Your task to perform on an android device: Open calendar and show me the second week of next month Image 0: 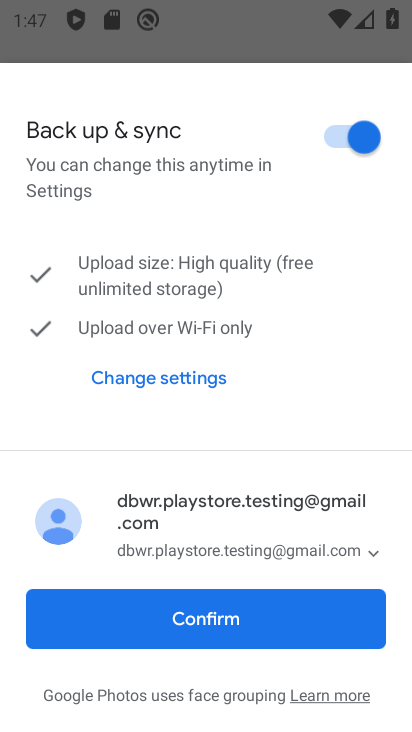
Step 0: press home button
Your task to perform on an android device: Open calendar and show me the second week of next month Image 1: 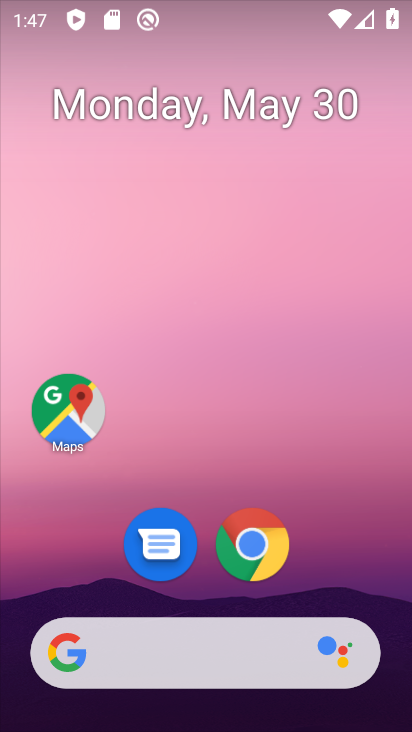
Step 1: drag from (143, 588) to (236, 81)
Your task to perform on an android device: Open calendar and show me the second week of next month Image 2: 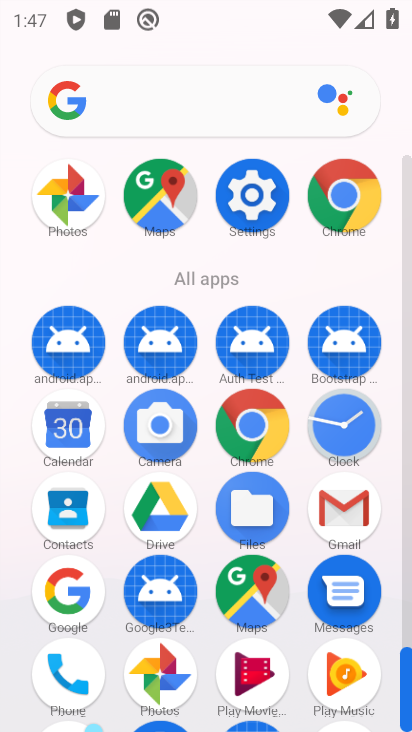
Step 2: click (60, 428)
Your task to perform on an android device: Open calendar and show me the second week of next month Image 3: 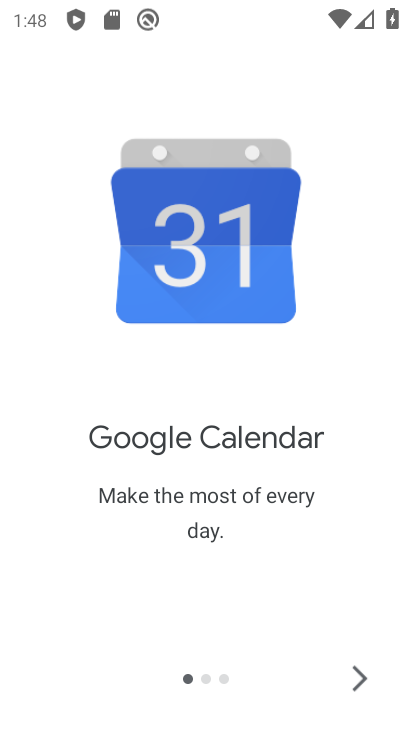
Step 3: click (349, 679)
Your task to perform on an android device: Open calendar and show me the second week of next month Image 4: 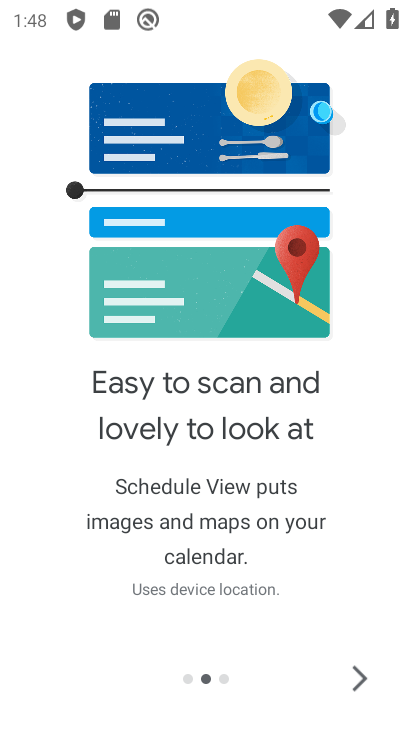
Step 4: click (350, 678)
Your task to perform on an android device: Open calendar and show me the second week of next month Image 5: 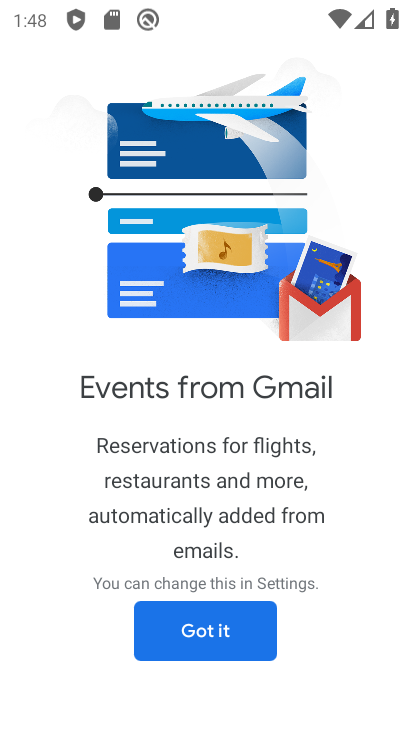
Step 5: click (183, 642)
Your task to perform on an android device: Open calendar and show me the second week of next month Image 6: 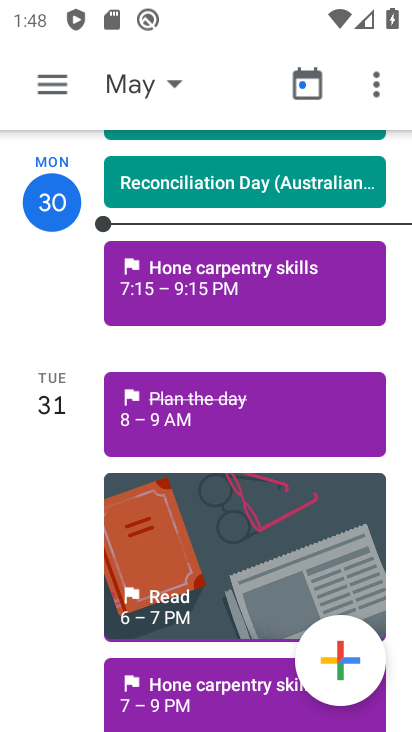
Step 6: click (149, 96)
Your task to perform on an android device: Open calendar and show me the second week of next month Image 7: 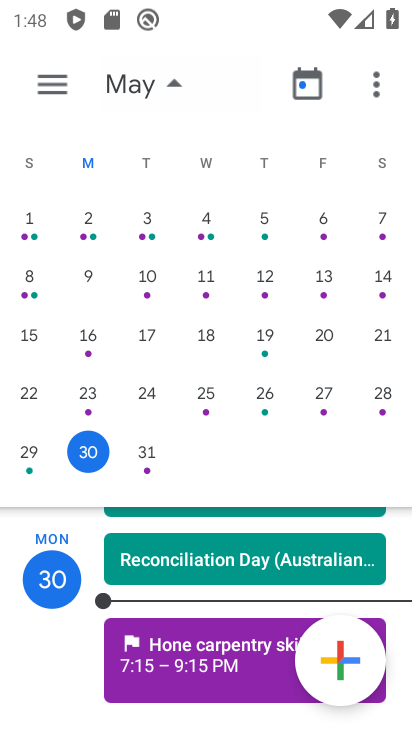
Step 7: click (122, 86)
Your task to perform on an android device: Open calendar and show me the second week of next month Image 8: 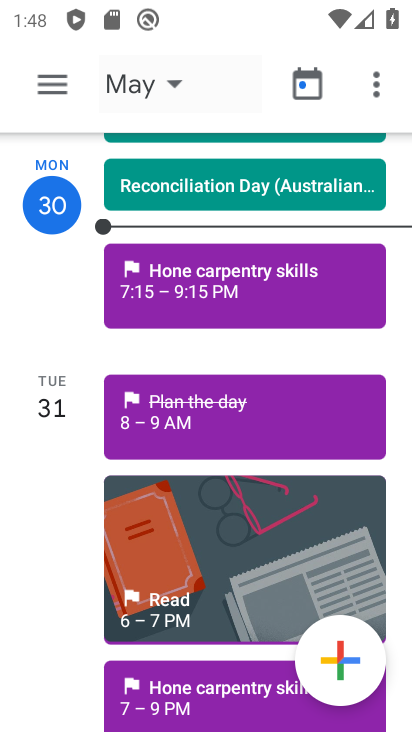
Step 8: drag from (368, 322) to (8, 148)
Your task to perform on an android device: Open calendar and show me the second week of next month Image 9: 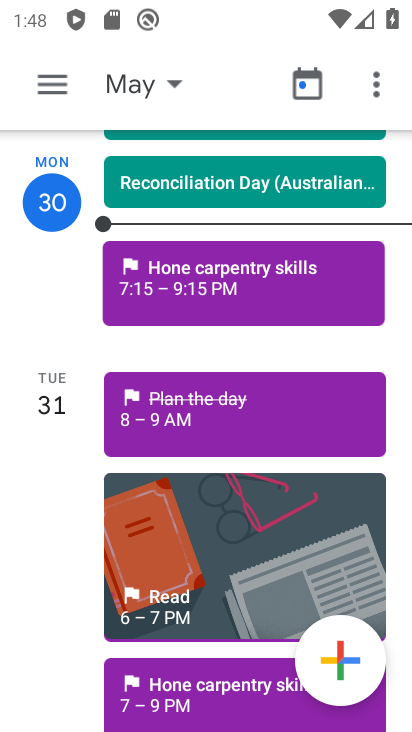
Step 9: click (143, 97)
Your task to perform on an android device: Open calendar and show me the second week of next month Image 10: 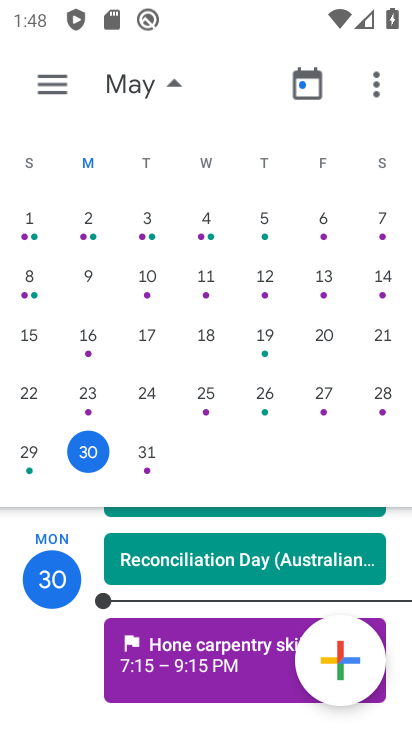
Step 10: drag from (395, 294) to (5, 370)
Your task to perform on an android device: Open calendar and show me the second week of next month Image 11: 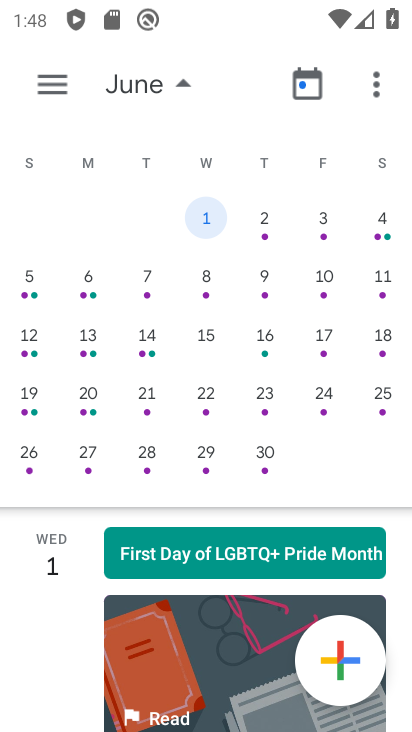
Step 11: click (28, 285)
Your task to perform on an android device: Open calendar and show me the second week of next month Image 12: 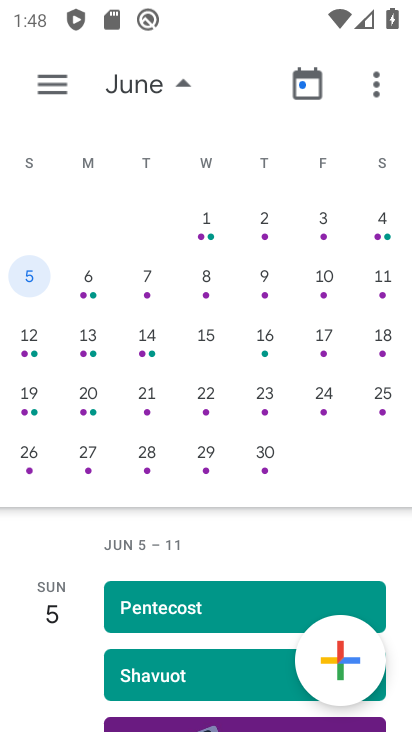
Step 12: task complete